Your task to perform on an android device: toggle sleep mode Image 0: 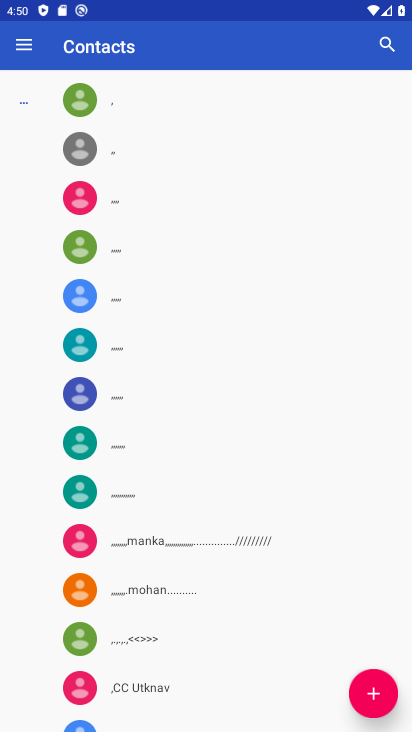
Step 0: press home button
Your task to perform on an android device: toggle sleep mode Image 1: 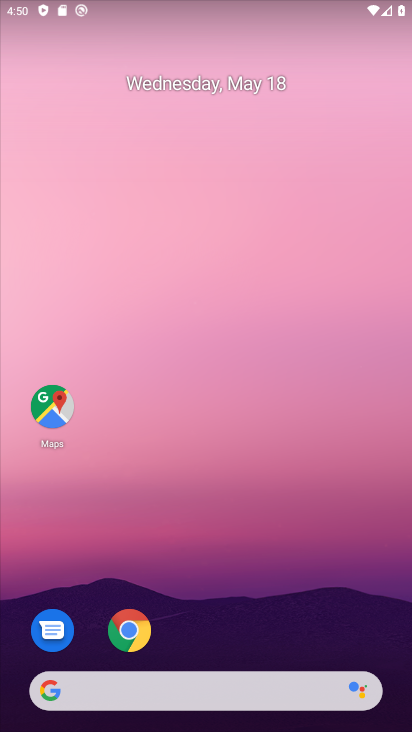
Step 1: drag from (180, 671) to (191, 311)
Your task to perform on an android device: toggle sleep mode Image 2: 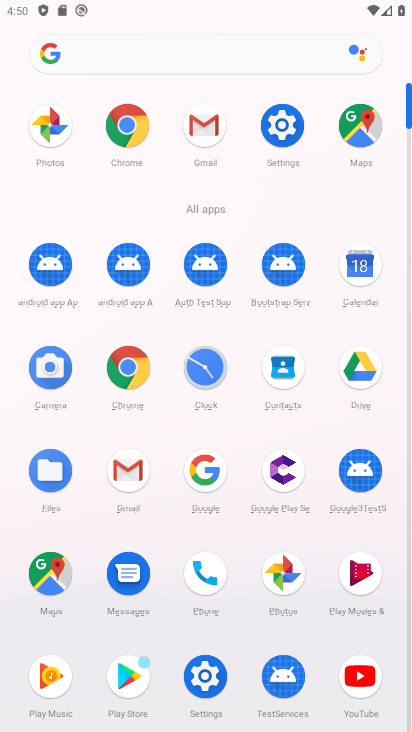
Step 2: click (279, 134)
Your task to perform on an android device: toggle sleep mode Image 3: 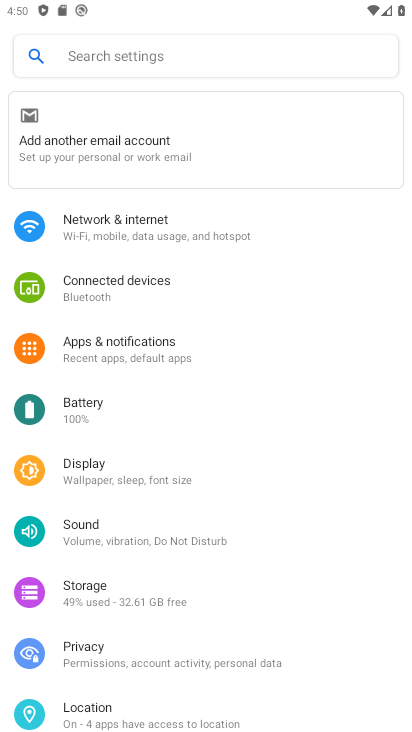
Step 3: click (95, 474)
Your task to perform on an android device: toggle sleep mode Image 4: 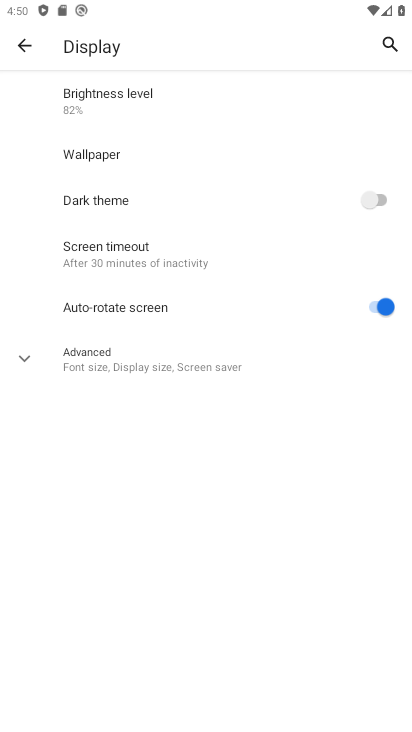
Step 4: click (97, 349)
Your task to perform on an android device: toggle sleep mode Image 5: 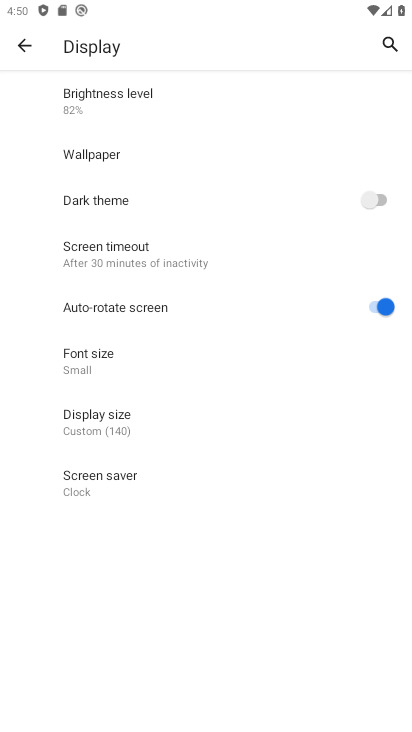
Step 5: click (108, 258)
Your task to perform on an android device: toggle sleep mode Image 6: 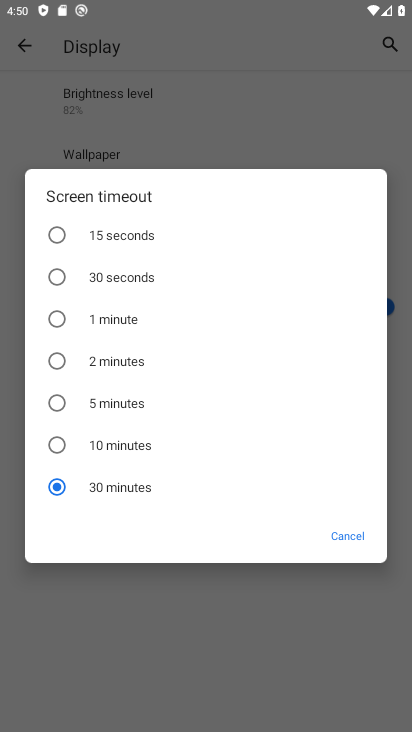
Step 6: click (94, 236)
Your task to perform on an android device: toggle sleep mode Image 7: 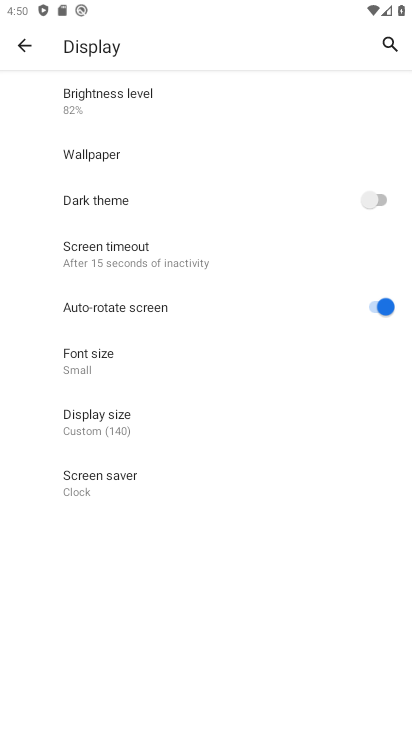
Step 7: task complete